Your task to perform on an android device: turn off airplane mode Image 0: 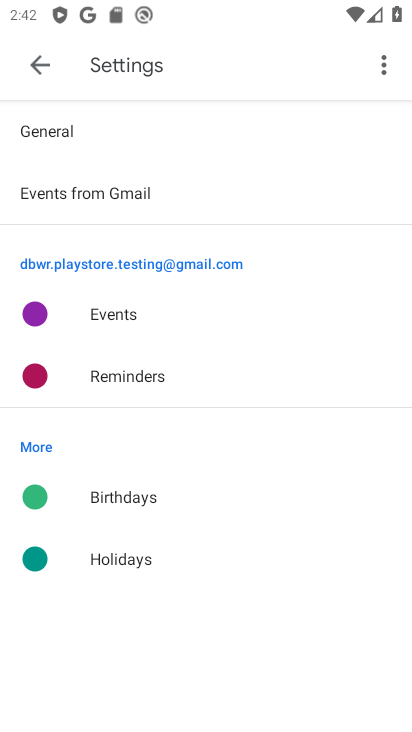
Step 0: press home button
Your task to perform on an android device: turn off airplane mode Image 1: 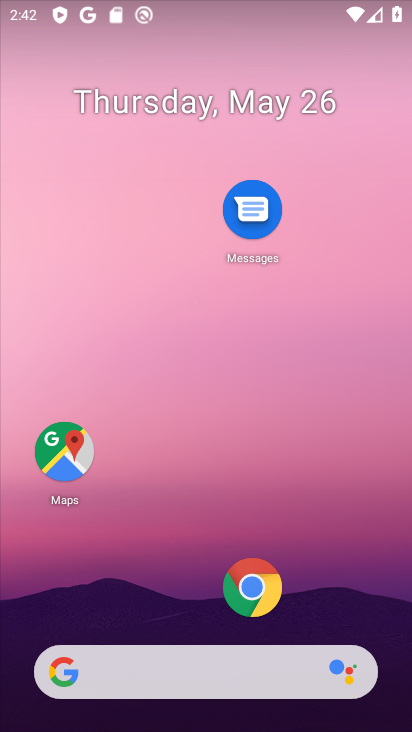
Step 1: drag from (176, 593) to (279, 12)
Your task to perform on an android device: turn off airplane mode Image 2: 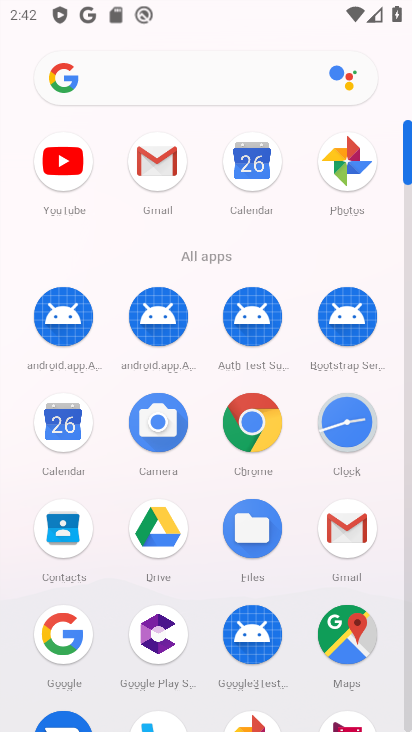
Step 2: drag from (205, 517) to (241, 101)
Your task to perform on an android device: turn off airplane mode Image 3: 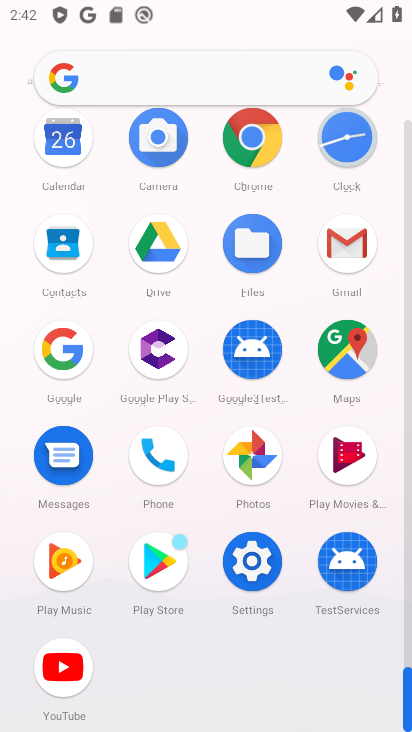
Step 3: click (265, 563)
Your task to perform on an android device: turn off airplane mode Image 4: 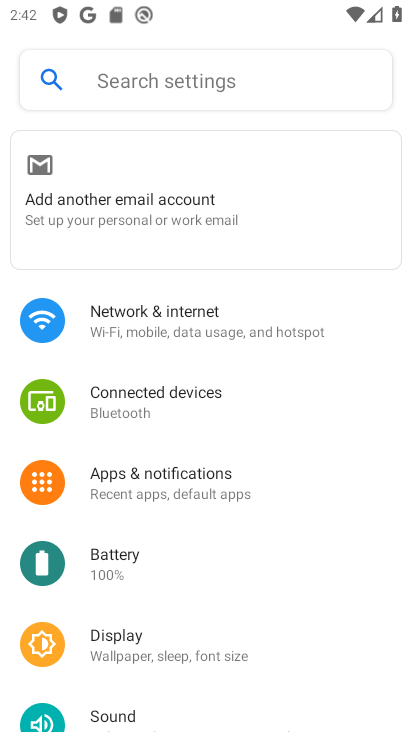
Step 4: click (218, 325)
Your task to perform on an android device: turn off airplane mode Image 5: 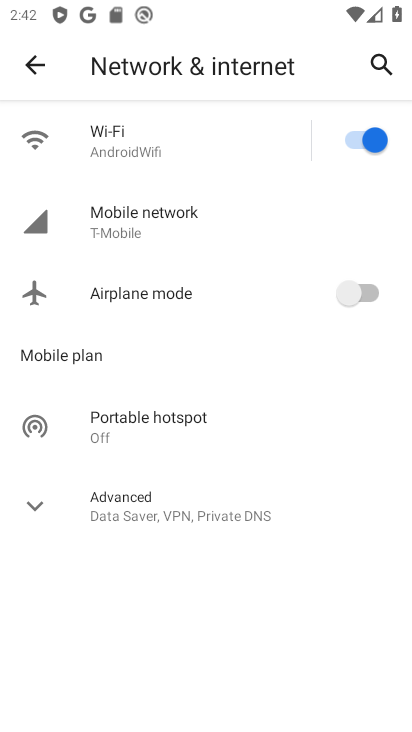
Step 5: task complete